Your task to perform on an android device: Open privacy settings Image 0: 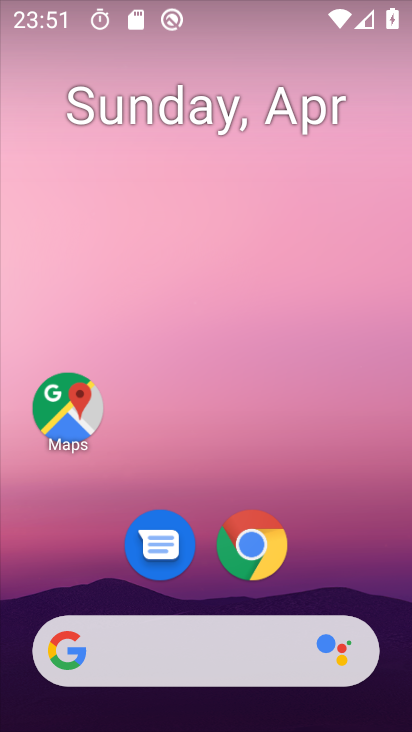
Step 0: drag from (340, 416) to (379, 156)
Your task to perform on an android device: Open privacy settings Image 1: 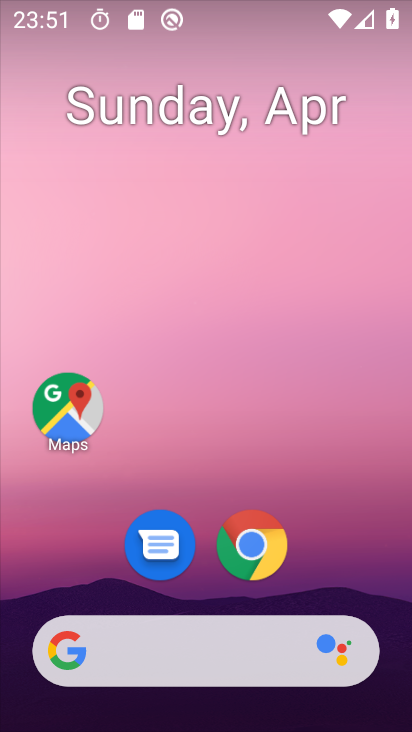
Step 1: drag from (315, 533) to (325, 240)
Your task to perform on an android device: Open privacy settings Image 2: 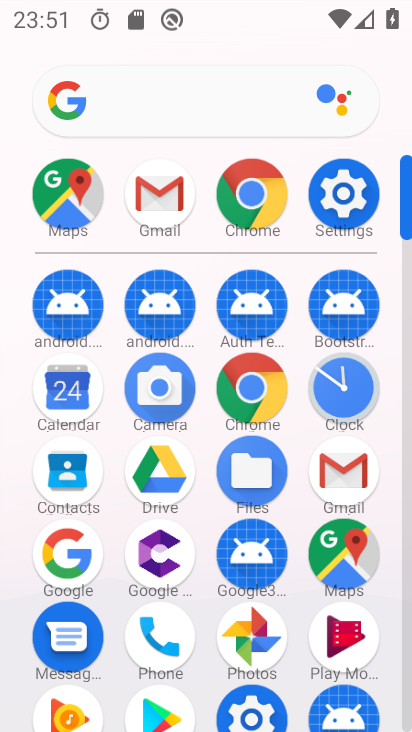
Step 2: click (234, 185)
Your task to perform on an android device: Open privacy settings Image 3: 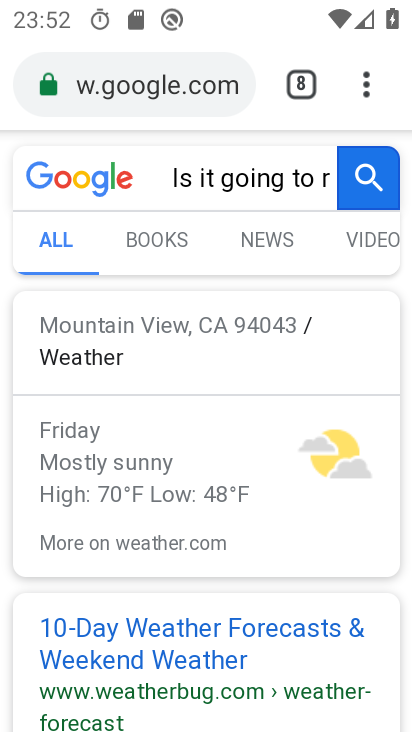
Step 3: click (358, 83)
Your task to perform on an android device: Open privacy settings Image 4: 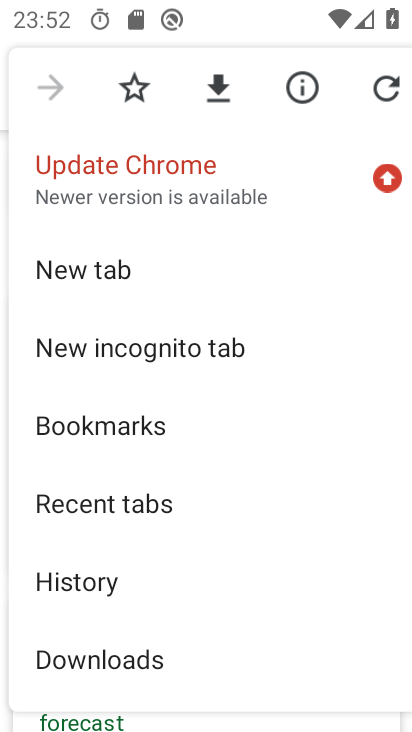
Step 4: drag from (225, 609) to (256, 116)
Your task to perform on an android device: Open privacy settings Image 5: 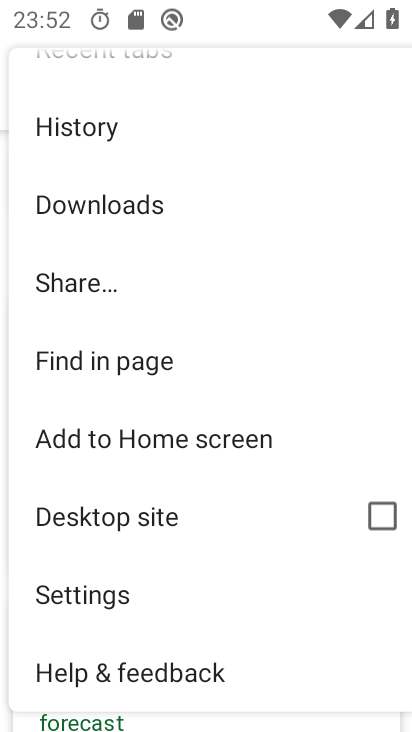
Step 5: click (99, 590)
Your task to perform on an android device: Open privacy settings Image 6: 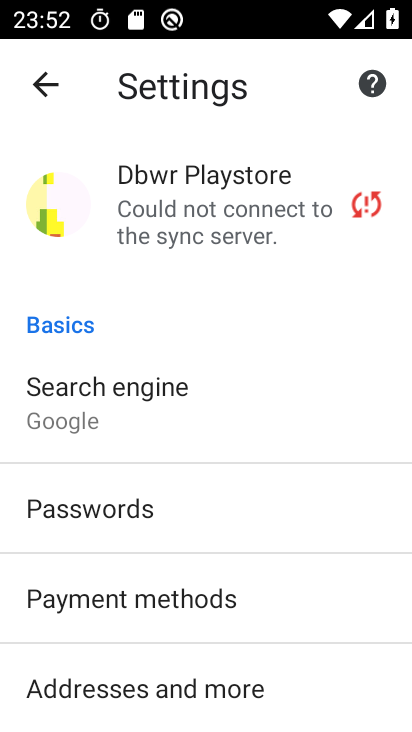
Step 6: drag from (223, 632) to (328, 254)
Your task to perform on an android device: Open privacy settings Image 7: 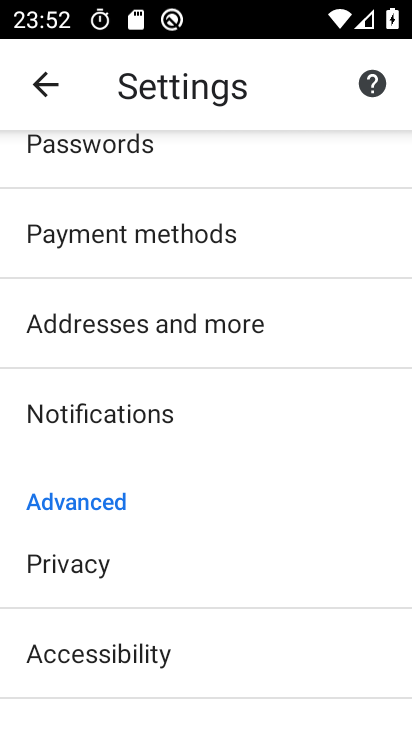
Step 7: click (111, 552)
Your task to perform on an android device: Open privacy settings Image 8: 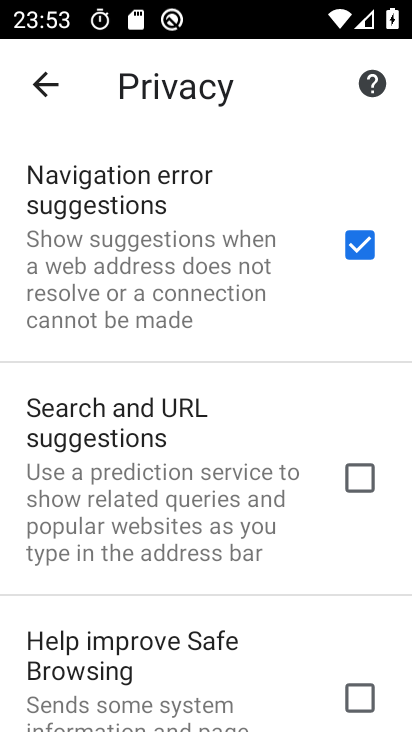
Step 8: task complete